Your task to perform on an android device: When is my next appointment? Image 0: 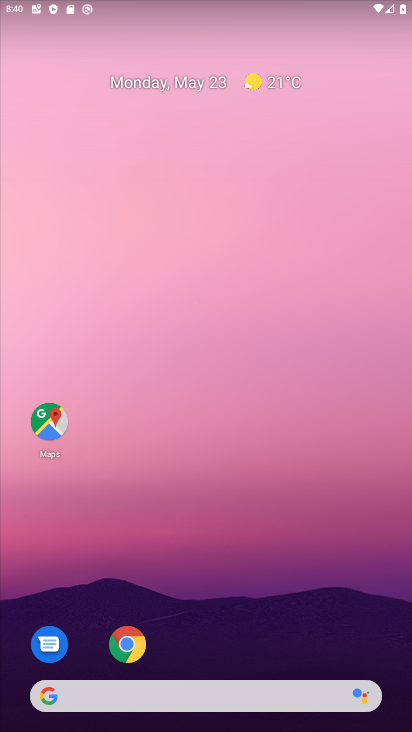
Step 0: drag from (259, 682) to (234, 26)
Your task to perform on an android device: When is my next appointment? Image 1: 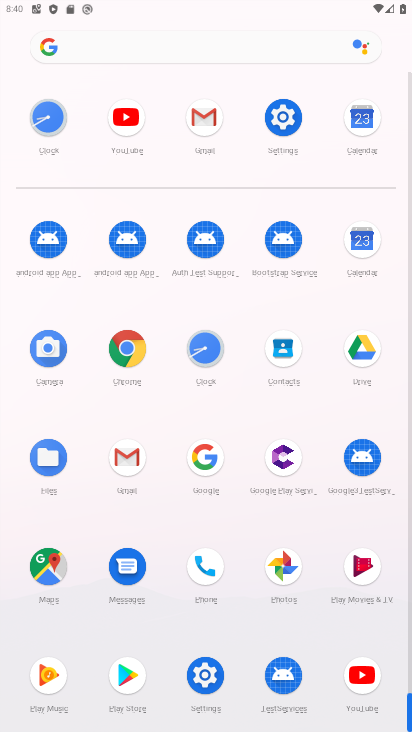
Step 1: click (372, 230)
Your task to perform on an android device: When is my next appointment? Image 2: 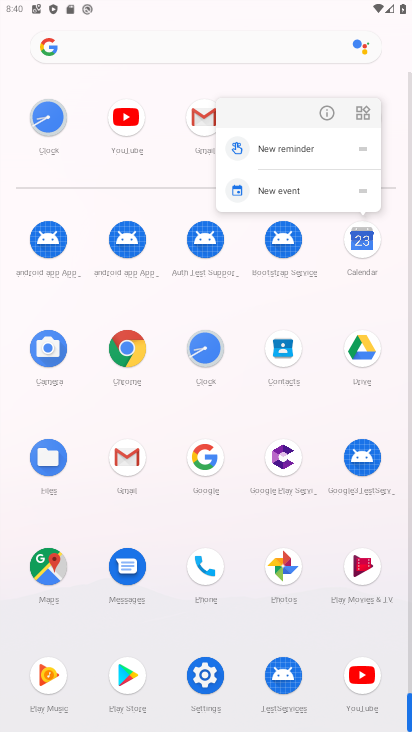
Step 2: click (375, 244)
Your task to perform on an android device: When is my next appointment? Image 3: 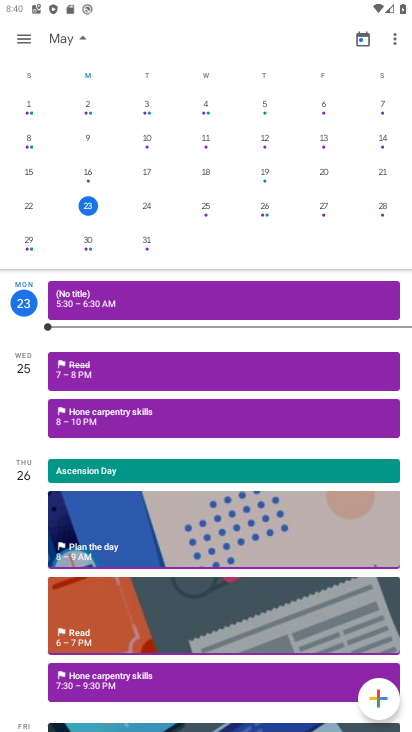
Step 3: click (27, 32)
Your task to perform on an android device: When is my next appointment? Image 4: 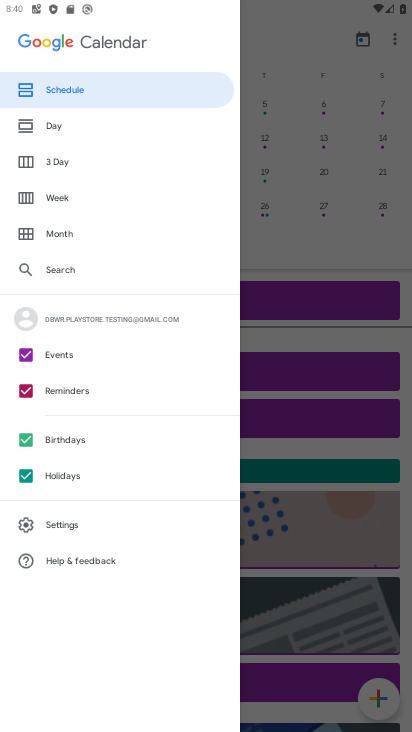
Step 4: click (45, 89)
Your task to perform on an android device: When is my next appointment? Image 5: 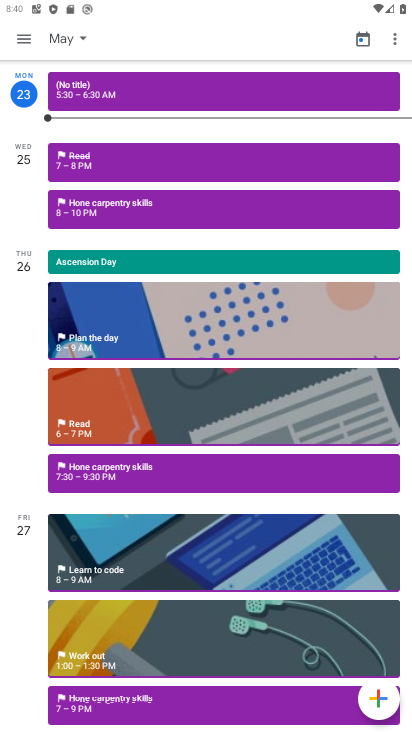
Step 5: task complete